Your task to perform on an android device: turn pop-ups on in chrome Image 0: 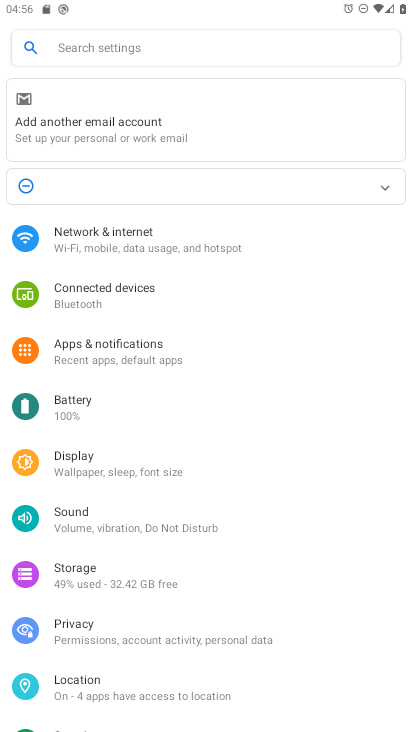
Step 0: press home button
Your task to perform on an android device: turn pop-ups on in chrome Image 1: 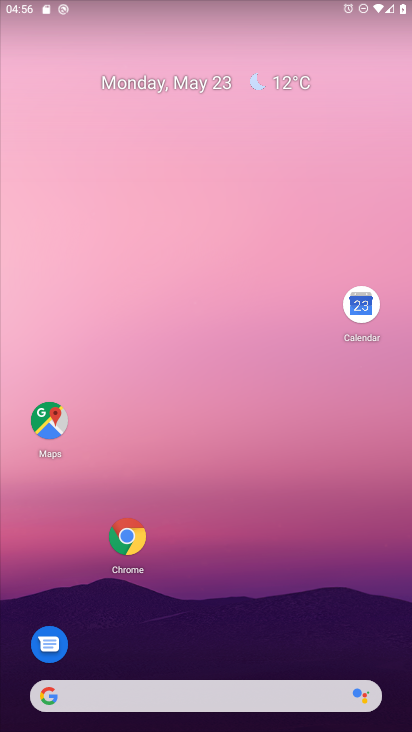
Step 1: click (101, 524)
Your task to perform on an android device: turn pop-ups on in chrome Image 2: 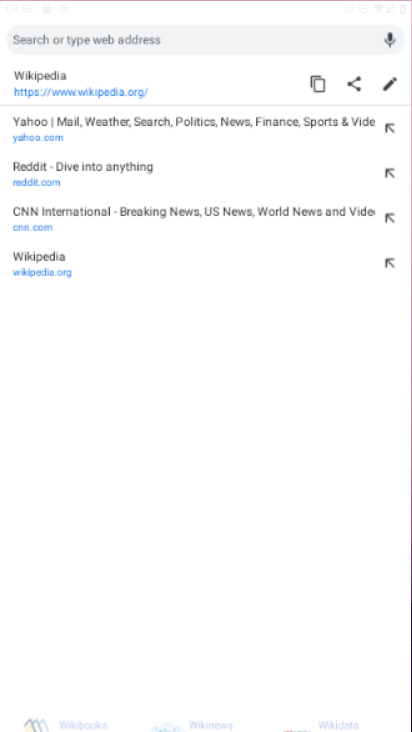
Step 2: click (125, 536)
Your task to perform on an android device: turn pop-ups on in chrome Image 3: 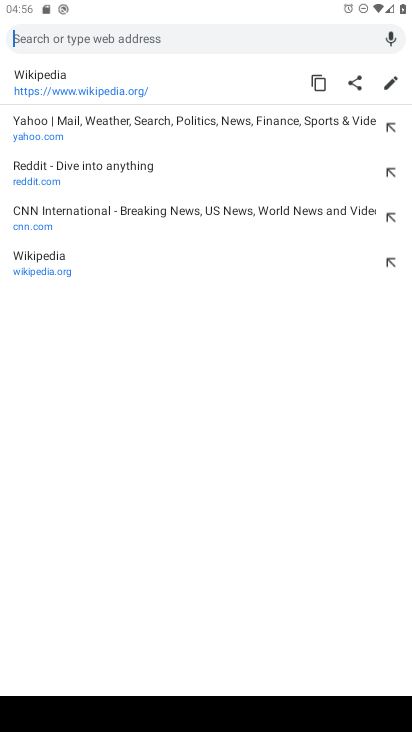
Step 3: press back button
Your task to perform on an android device: turn pop-ups on in chrome Image 4: 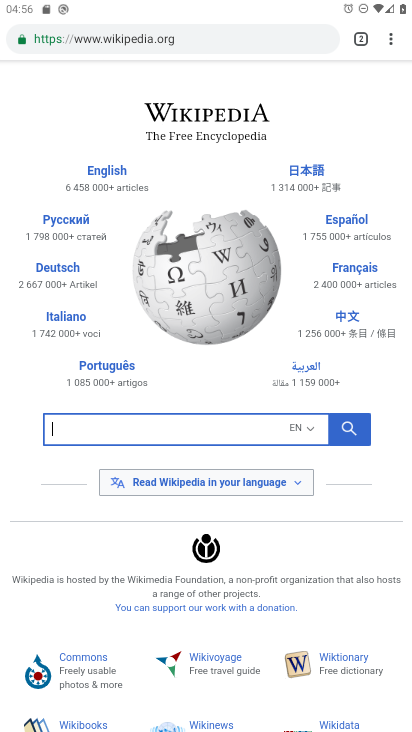
Step 4: click (393, 37)
Your task to perform on an android device: turn pop-ups on in chrome Image 5: 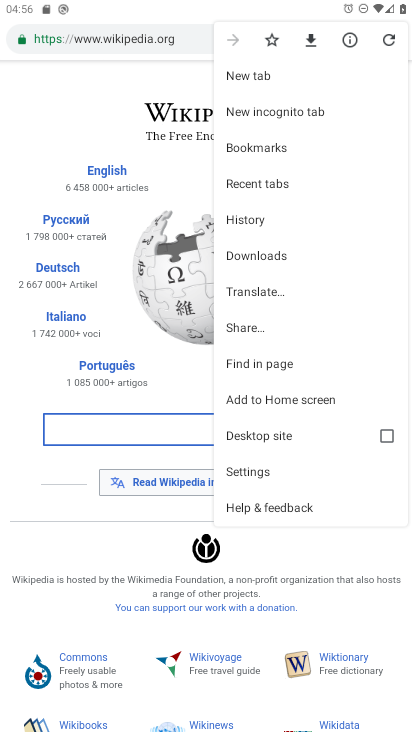
Step 5: click (276, 468)
Your task to perform on an android device: turn pop-ups on in chrome Image 6: 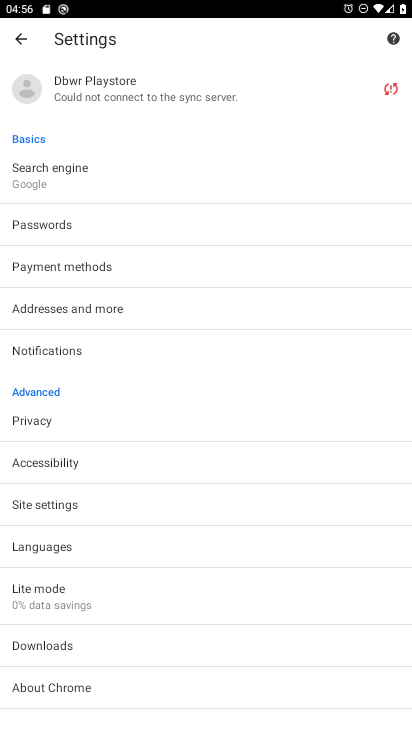
Step 6: click (112, 500)
Your task to perform on an android device: turn pop-ups on in chrome Image 7: 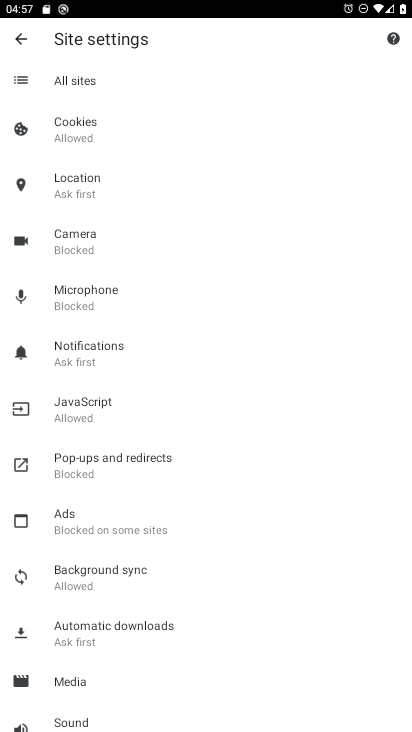
Step 7: click (129, 462)
Your task to perform on an android device: turn pop-ups on in chrome Image 8: 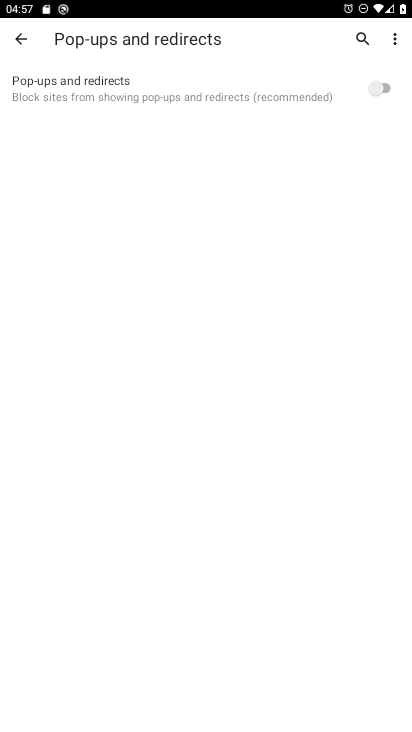
Step 8: click (374, 91)
Your task to perform on an android device: turn pop-ups on in chrome Image 9: 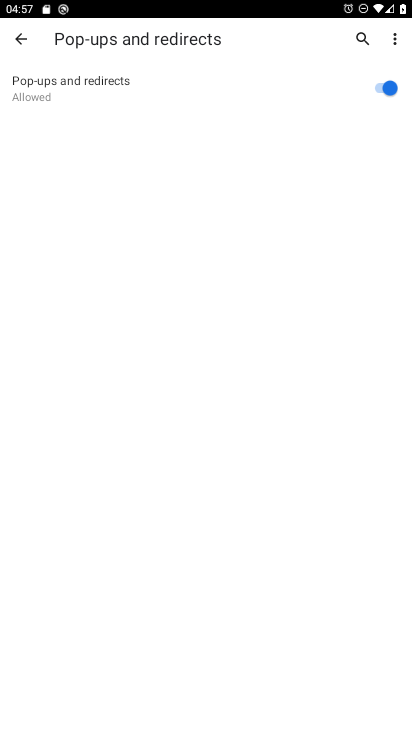
Step 9: task complete